Your task to perform on an android device: What's the weather going to be this weekend? Image 0: 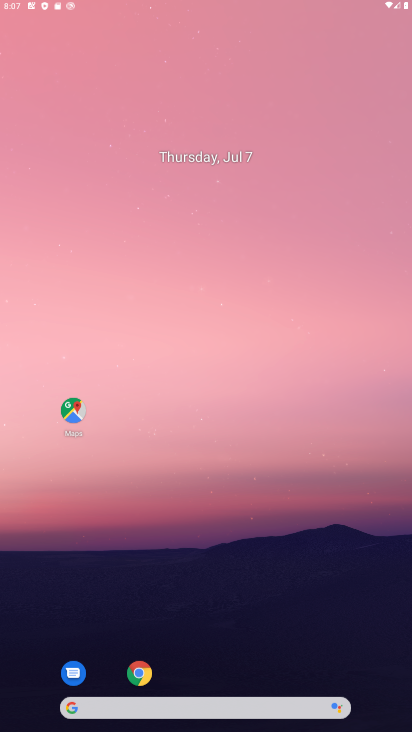
Step 0: press home button
Your task to perform on an android device: What's the weather going to be this weekend? Image 1: 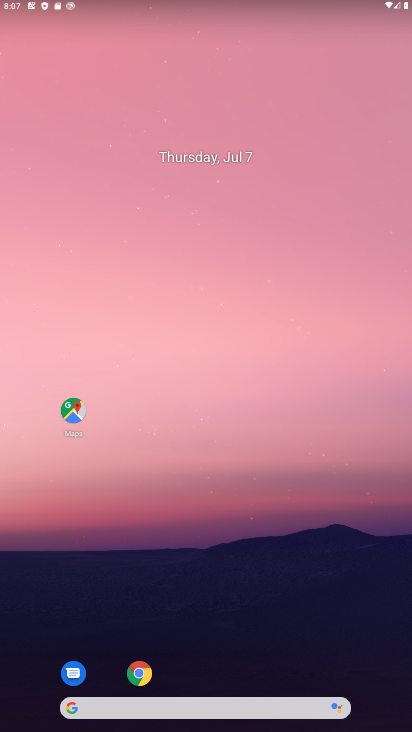
Step 1: click (78, 703)
Your task to perform on an android device: What's the weather going to be this weekend? Image 2: 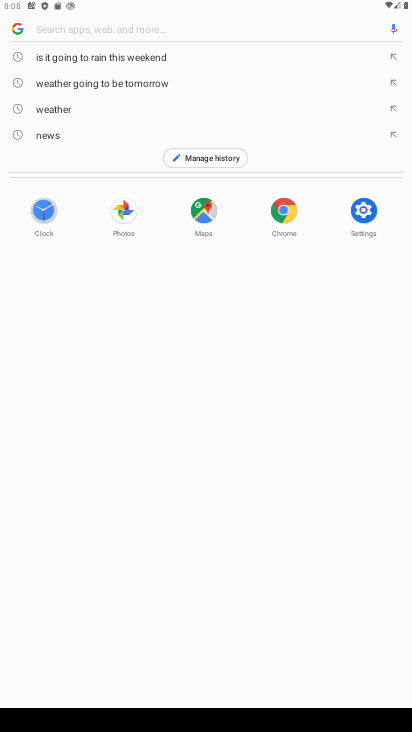
Step 2: type "weather this weekend"
Your task to perform on an android device: What's the weather going to be this weekend? Image 3: 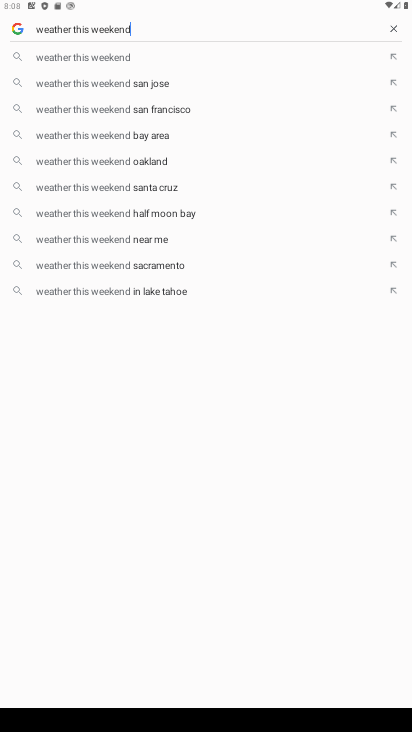
Step 3: click (79, 56)
Your task to perform on an android device: What's the weather going to be this weekend? Image 4: 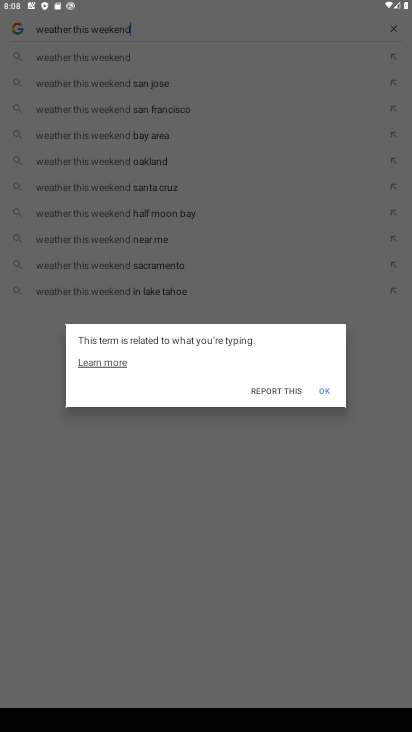
Step 4: click (326, 391)
Your task to perform on an android device: What's the weather going to be this weekend? Image 5: 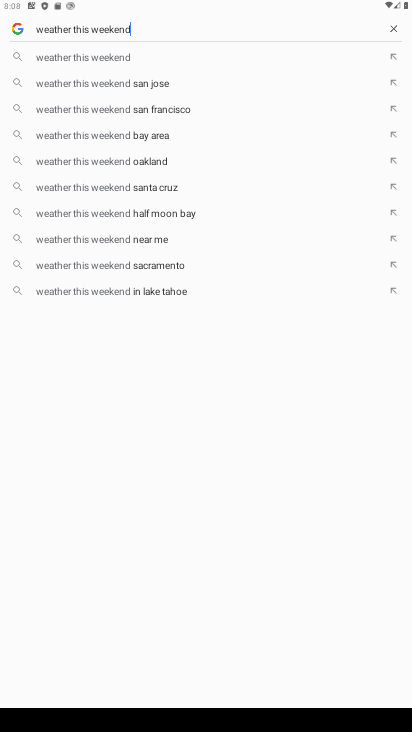
Step 5: click (91, 57)
Your task to perform on an android device: What's the weather going to be this weekend? Image 6: 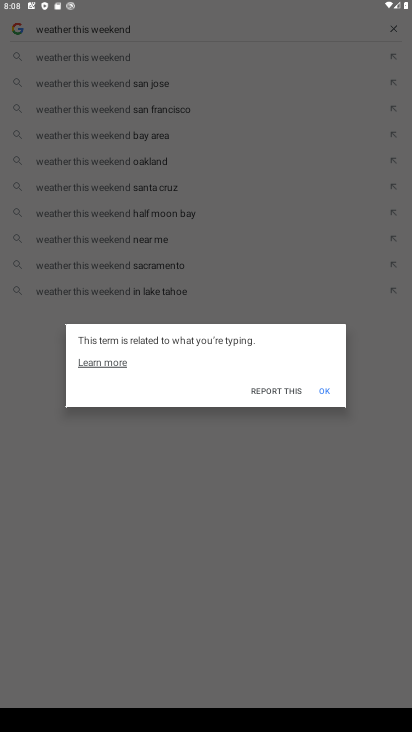
Step 6: click (322, 391)
Your task to perform on an android device: What's the weather going to be this weekend? Image 7: 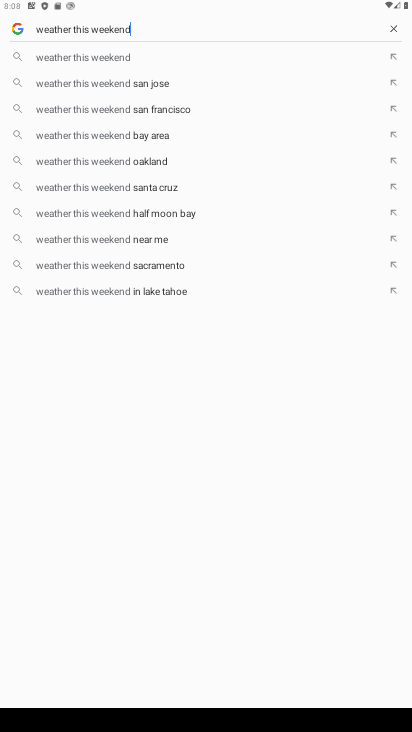
Step 7: click (161, 14)
Your task to perform on an android device: What's the weather going to be this weekend? Image 8: 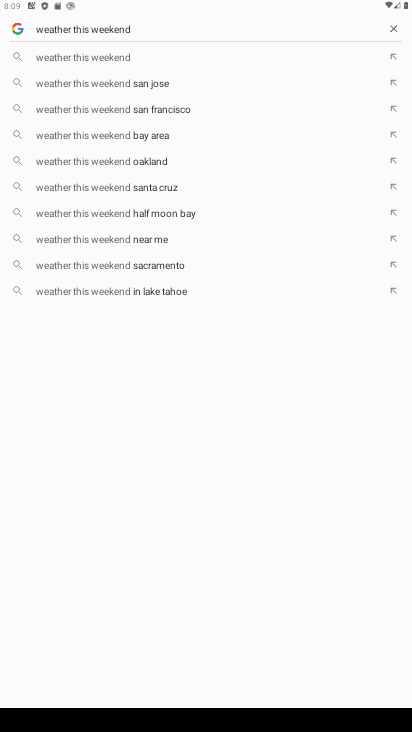
Step 8: click (88, 57)
Your task to perform on an android device: What's the weather going to be this weekend? Image 9: 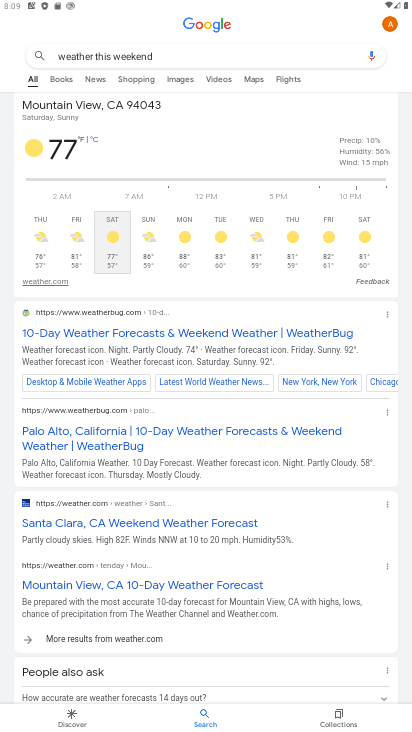
Step 9: task complete